Your task to perform on an android device: set the timer Image 0: 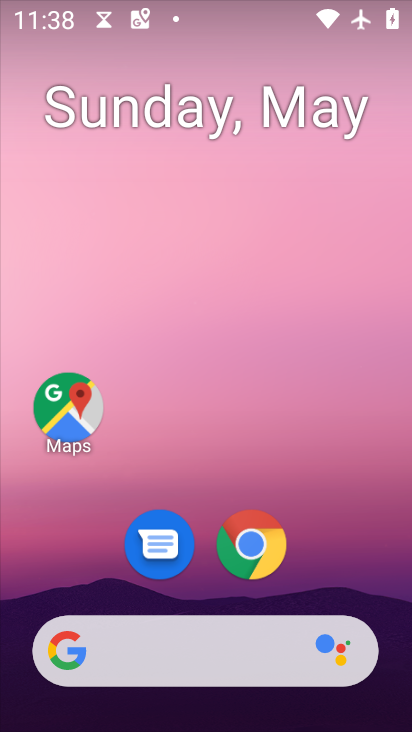
Step 0: drag from (315, 557) to (334, 223)
Your task to perform on an android device: set the timer Image 1: 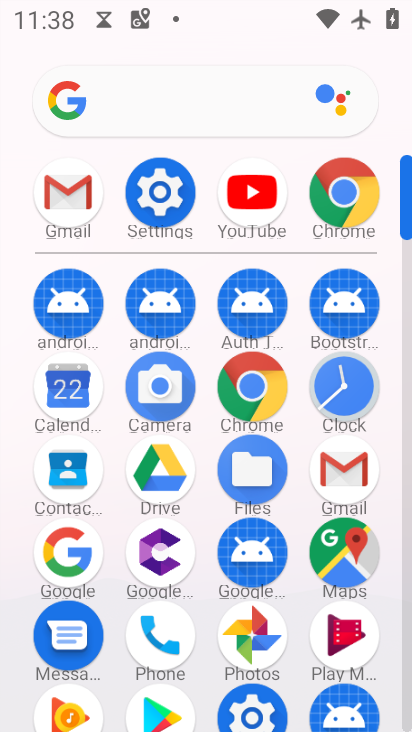
Step 1: click (355, 384)
Your task to perform on an android device: set the timer Image 2: 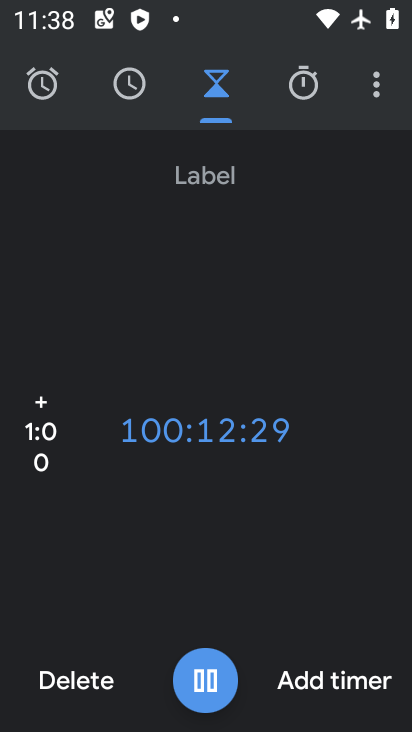
Step 2: click (215, 679)
Your task to perform on an android device: set the timer Image 3: 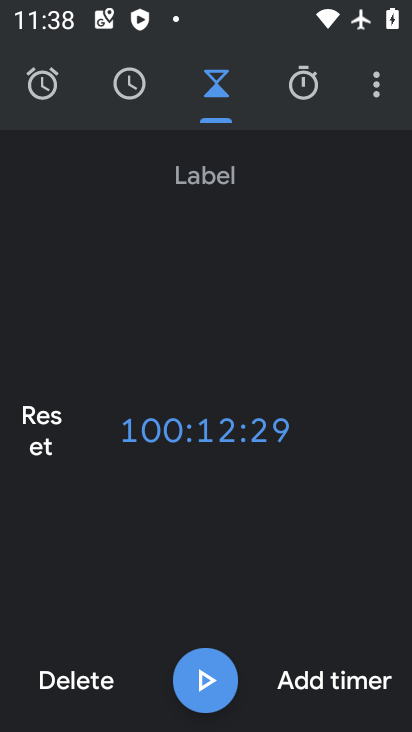
Step 3: click (215, 679)
Your task to perform on an android device: set the timer Image 4: 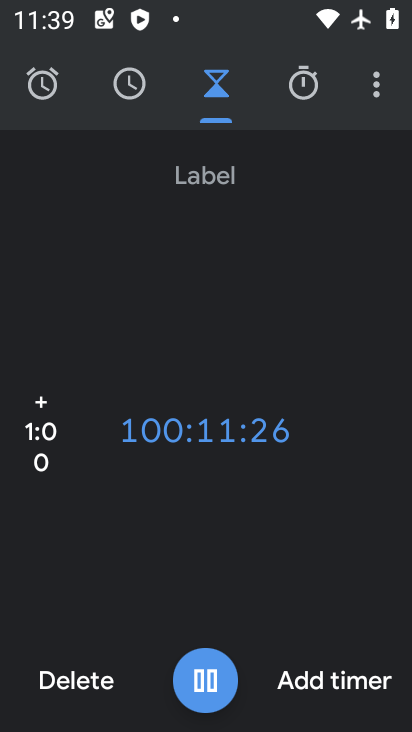
Step 4: task complete